Your task to perform on an android device: Open Google Maps Image 0: 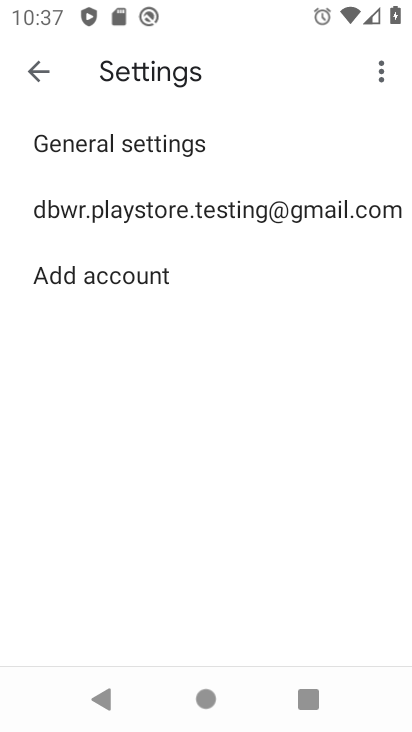
Step 0: press home button
Your task to perform on an android device: Open Google Maps Image 1: 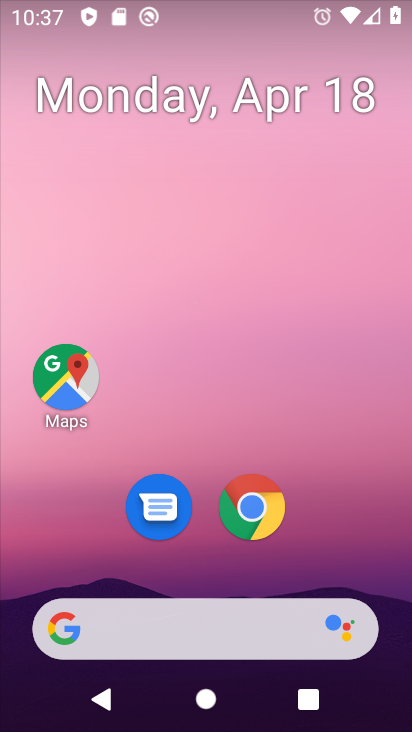
Step 1: drag from (291, 669) to (373, 372)
Your task to perform on an android device: Open Google Maps Image 2: 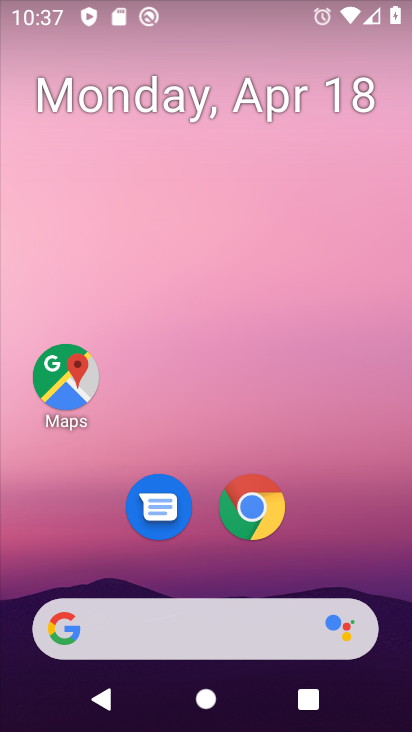
Step 2: drag from (244, 669) to (348, 159)
Your task to perform on an android device: Open Google Maps Image 3: 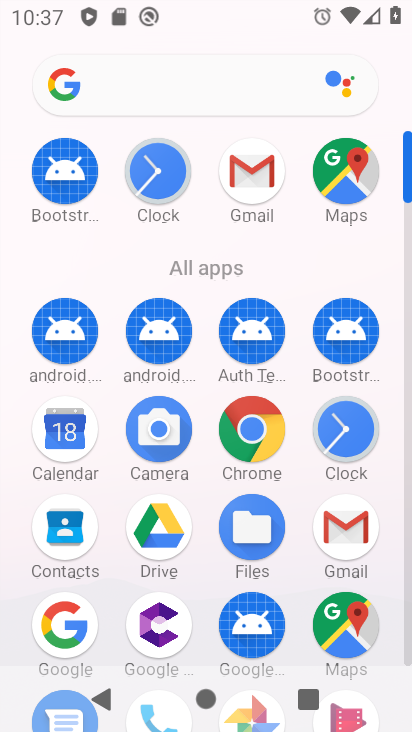
Step 3: click (337, 155)
Your task to perform on an android device: Open Google Maps Image 4: 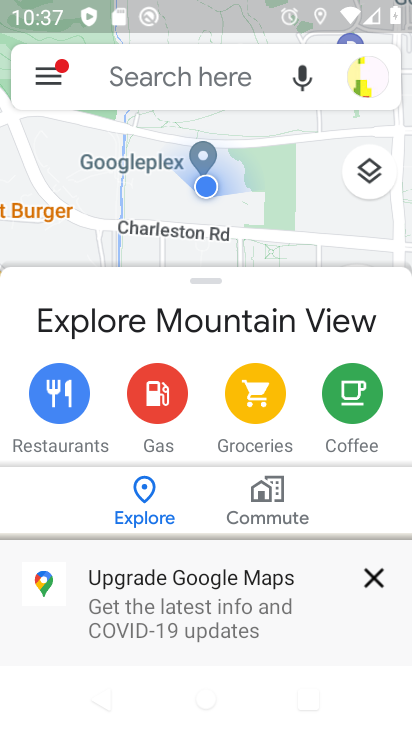
Step 4: click (375, 569)
Your task to perform on an android device: Open Google Maps Image 5: 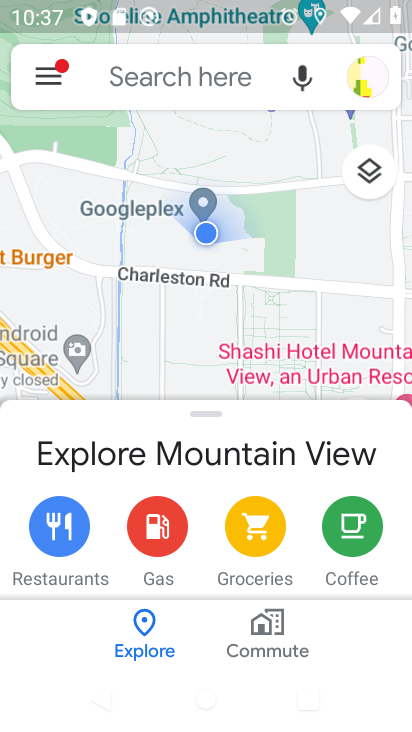
Step 5: click (279, 273)
Your task to perform on an android device: Open Google Maps Image 6: 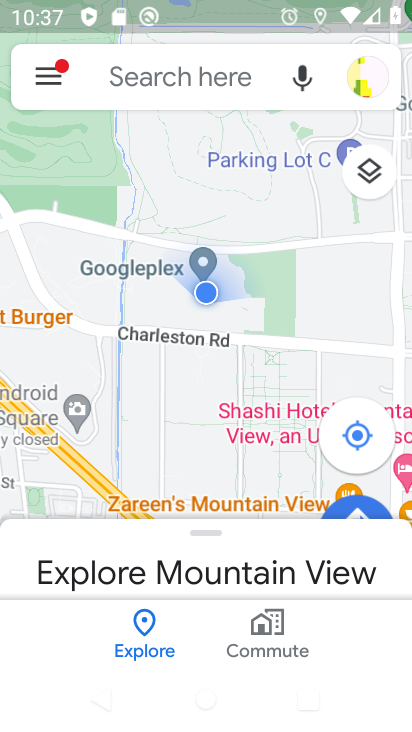
Step 6: task complete